Your task to perform on an android device: Open Yahoo.com Image 0: 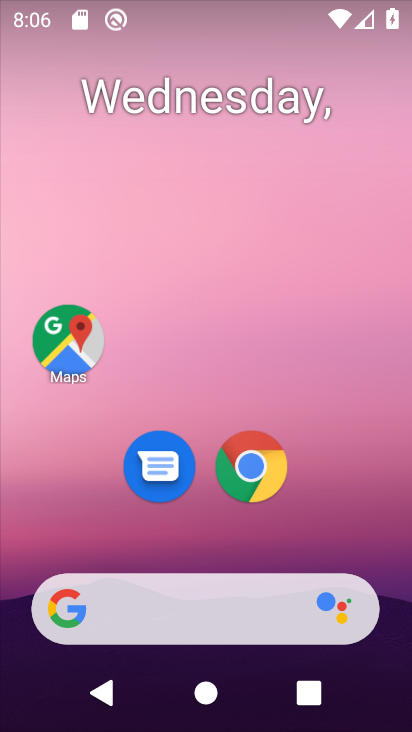
Step 0: click (248, 464)
Your task to perform on an android device: Open Yahoo.com Image 1: 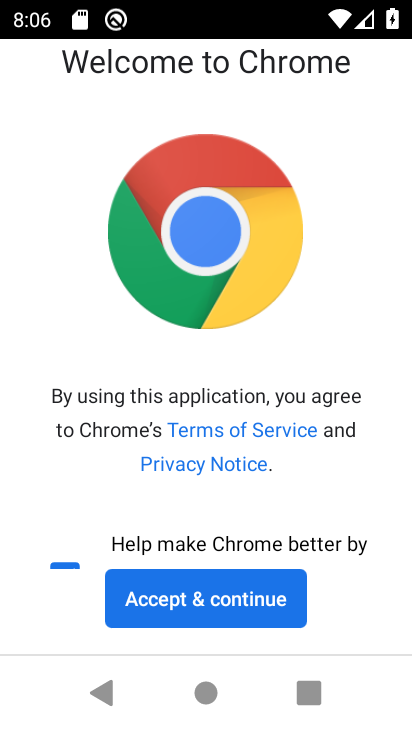
Step 1: click (209, 596)
Your task to perform on an android device: Open Yahoo.com Image 2: 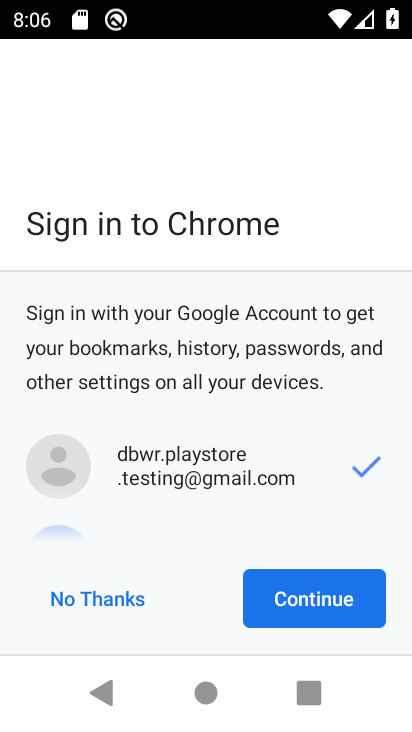
Step 2: click (321, 590)
Your task to perform on an android device: Open Yahoo.com Image 3: 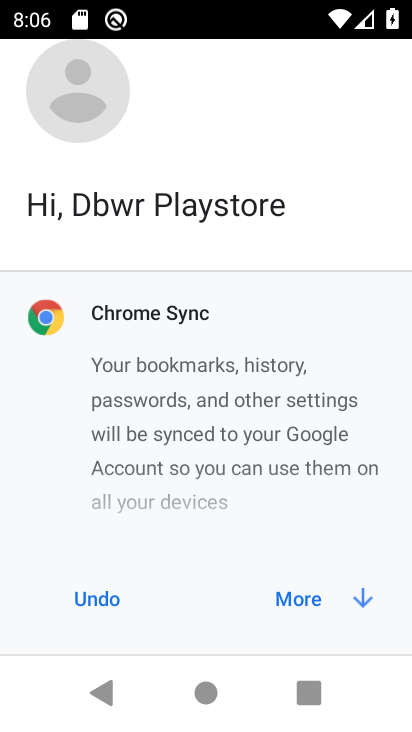
Step 3: click (306, 601)
Your task to perform on an android device: Open Yahoo.com Image 4: 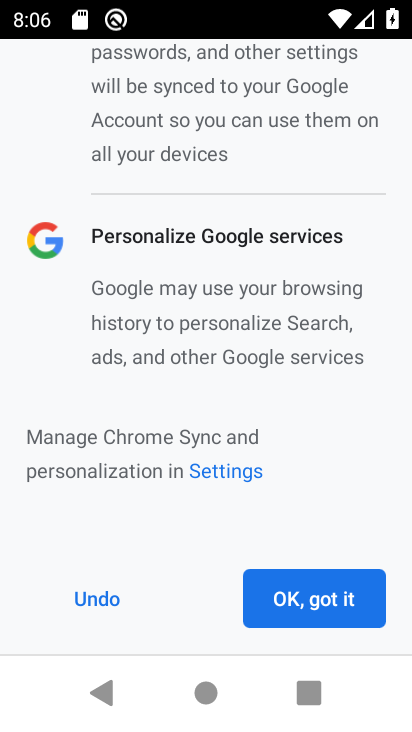
Step 4: click (306, 601)
Your task to perform on an android device: Open Yahoo.com Image 5: 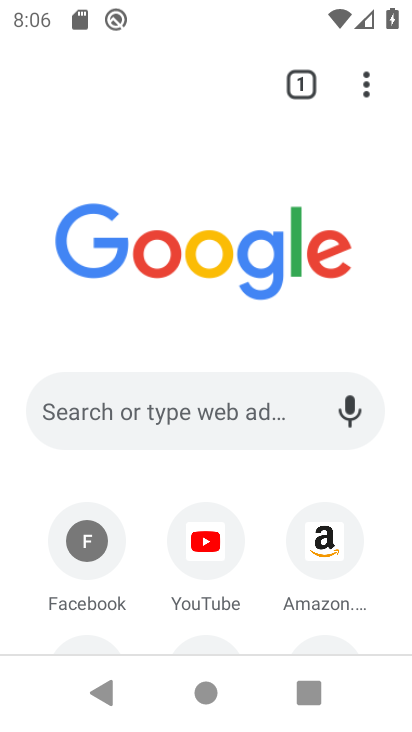
Step 5: click (219, 411)
Your task to perform on an android device: Open Yahoo.com Image 6: 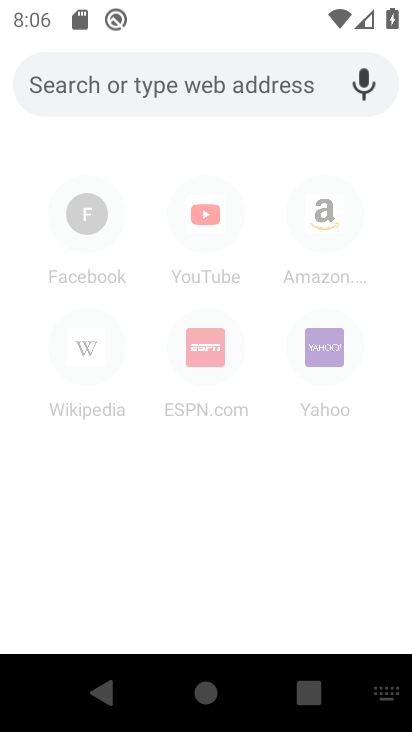
Step 6: type "Yahoo.com"
Your task to perform on an android device: Open Yahoo.com Image 7: 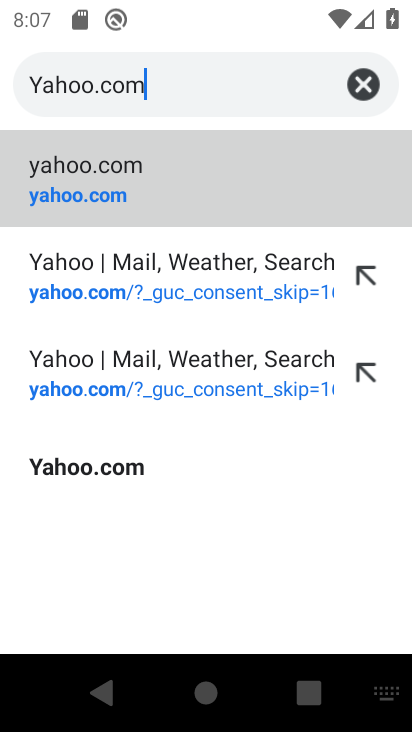
Step 7: click (71, 177)
Your task to perform on an android device: Open Yahoo.com Image 8: 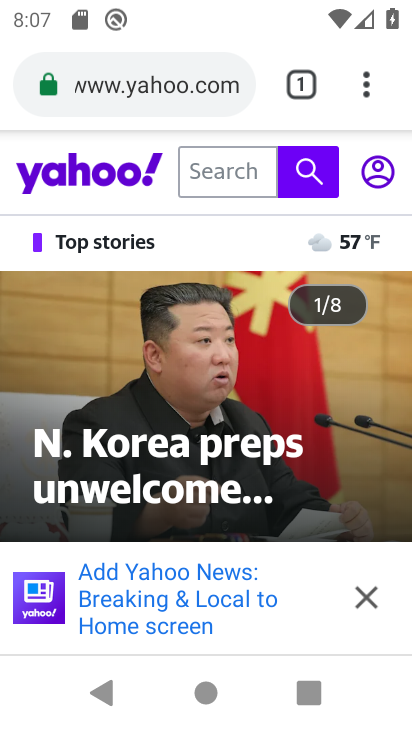
Step 8: task complete